Your task to perform on an android device: Open my contact list Image 0: 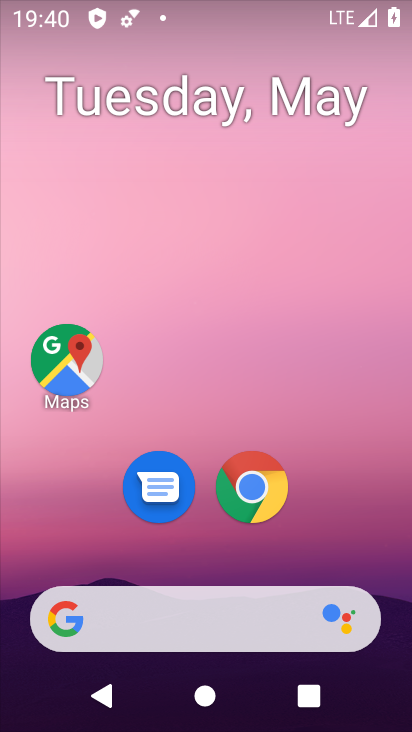
Step 0: drag from (341, 526) to (215, 78)
Your task to perform on an android device: Open my contact list Image 1: 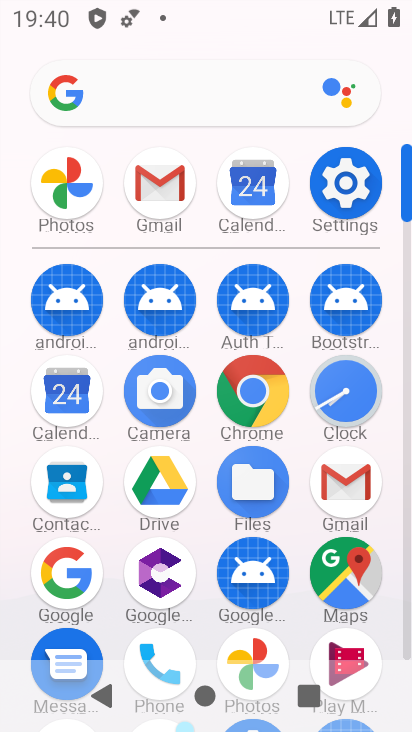
Step 1: click (62, 485)
Your task to perform on an android device: Open my contact list Image 2: 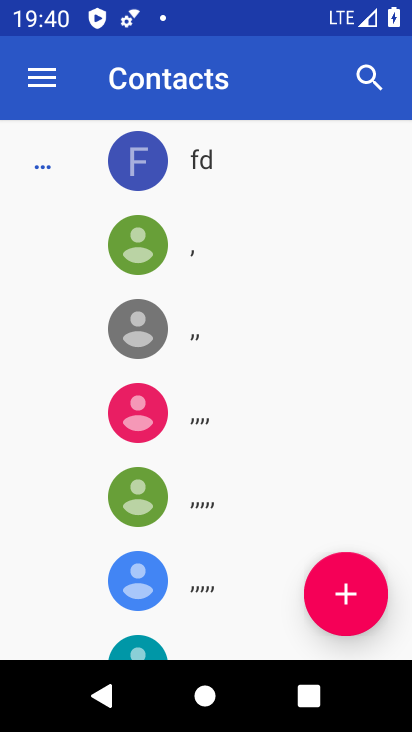
Step 2: task complete